Your task to perform on an android device: turn off notifications in google photos Image 0: 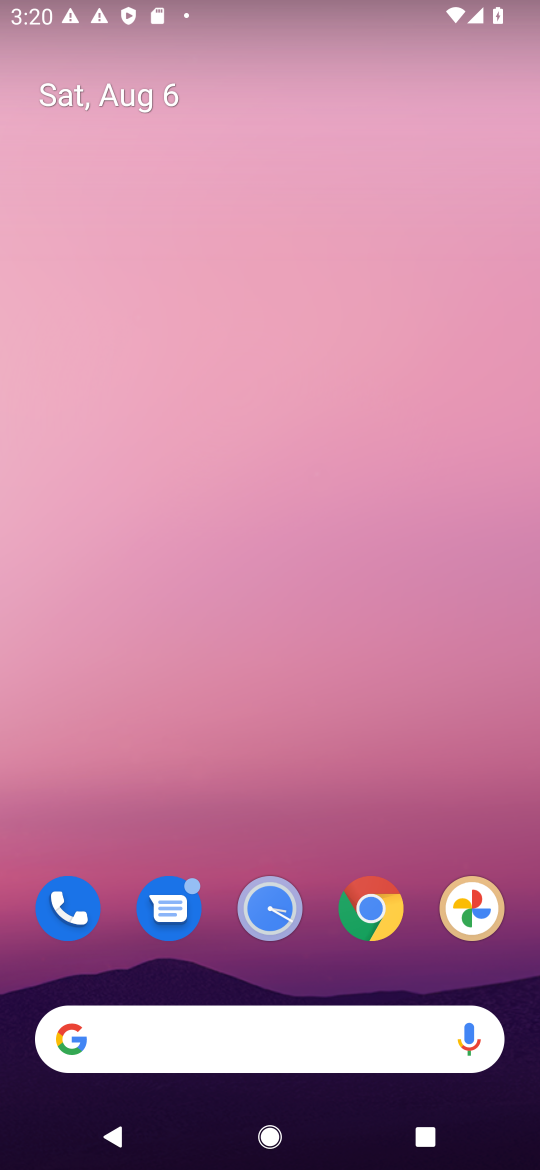
Step 0: click (475, 913)
Your task to perform on an android device: turn off notifications in google photos Image 1: 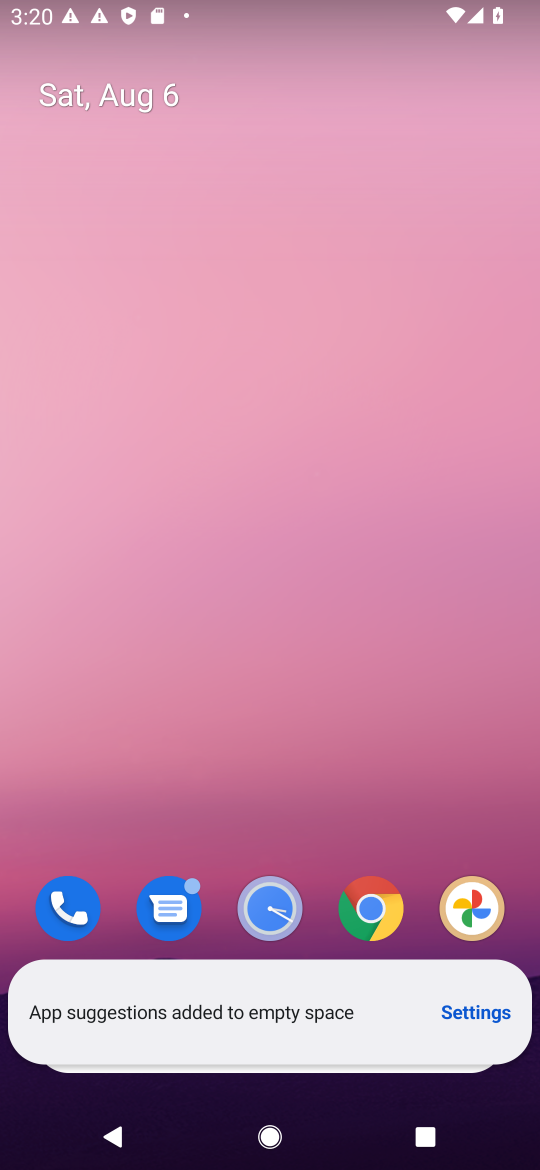
Step 1: click (476, 919)
Your task to perform on an android device: turn off notifications in google photos Image 2: 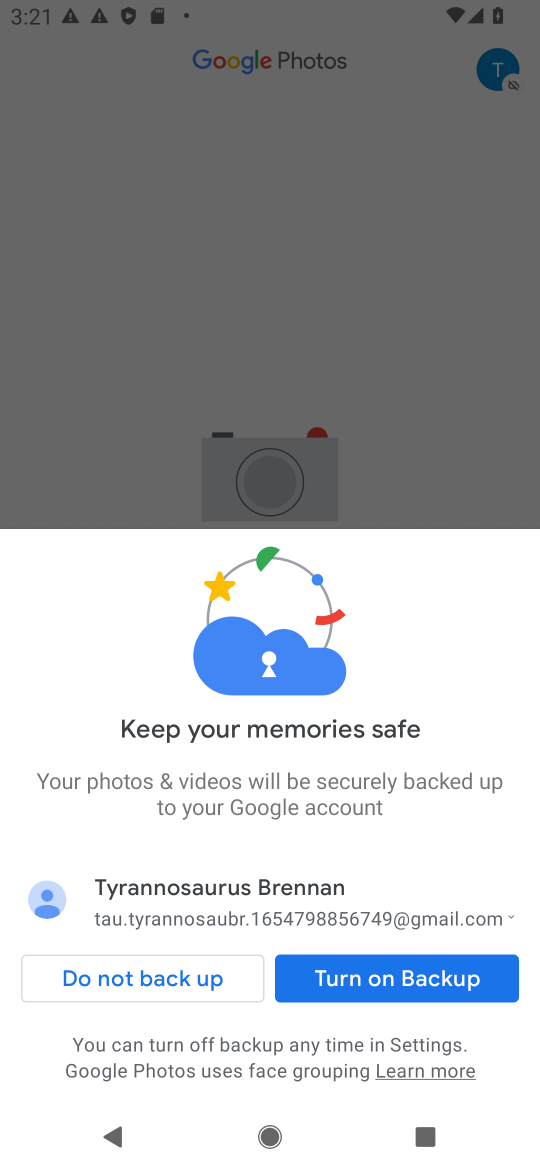
Step 2: click (212, 973)
Your task to perform on an android device: turn off notifications in google photos Image 3: 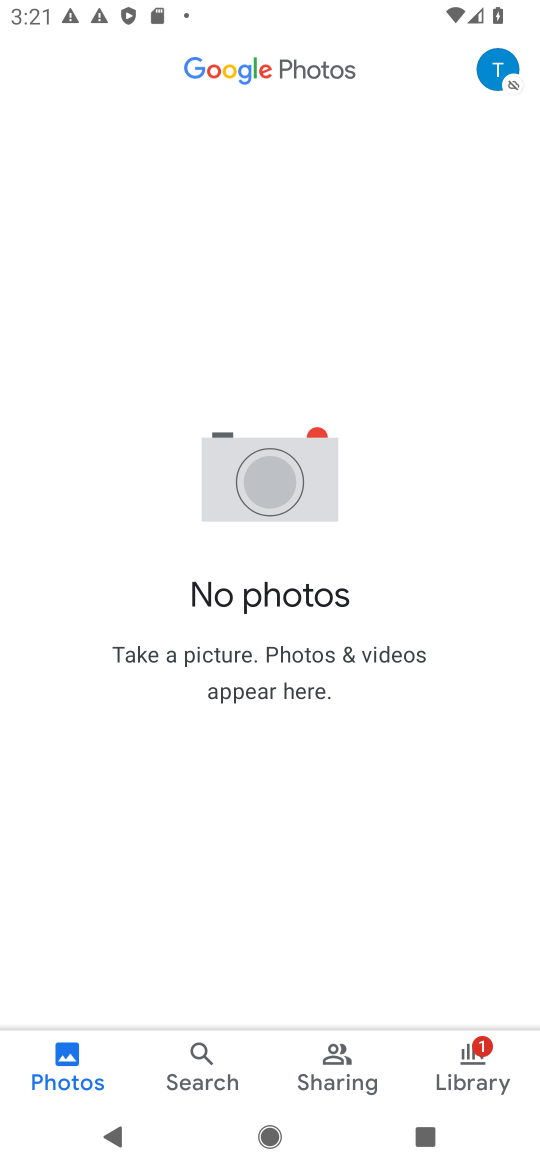
Step 3: click (498, 71)
Your task to perform on an android device: turn off notifications in google photos Image 4: 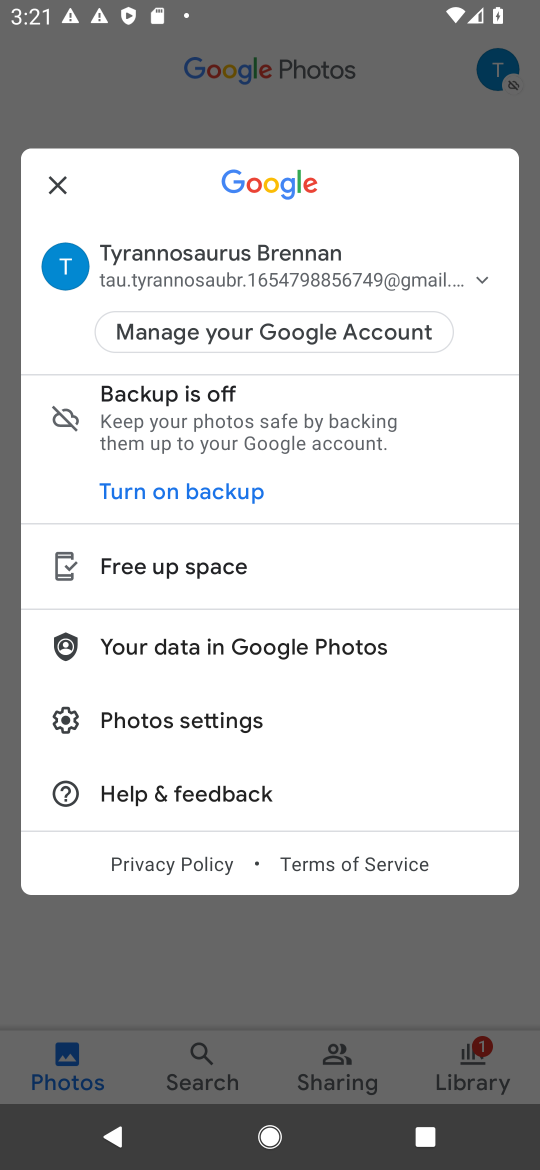
Step 4: click (227, 728)
Your task to perform on an android device: turn off notifications in google photos Image 5: 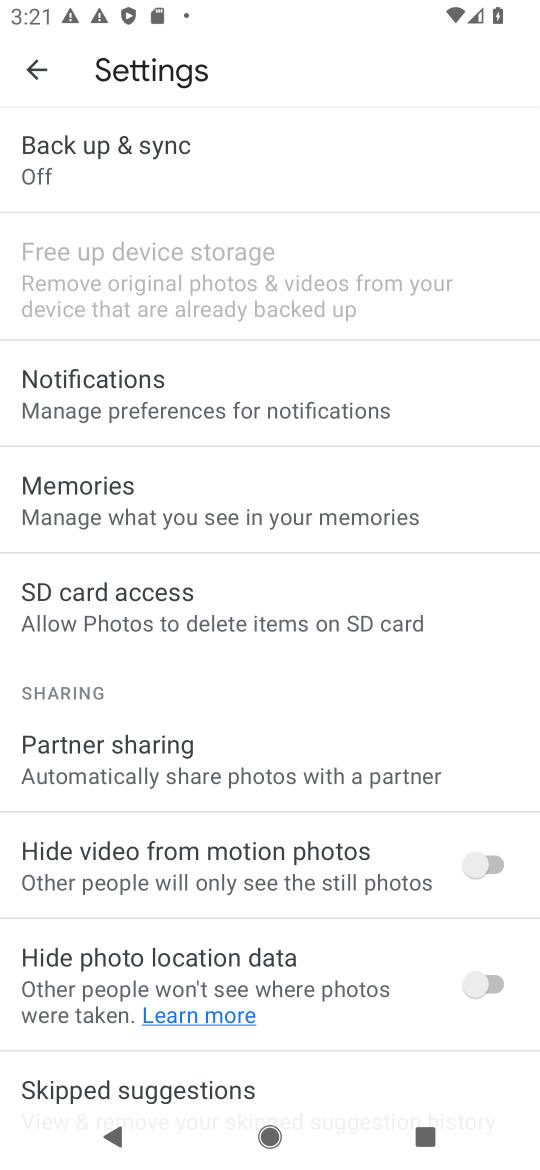
Step 5: click (200, 392)
Your task to perform on an android device: turn off notifications in google photos Image 6: 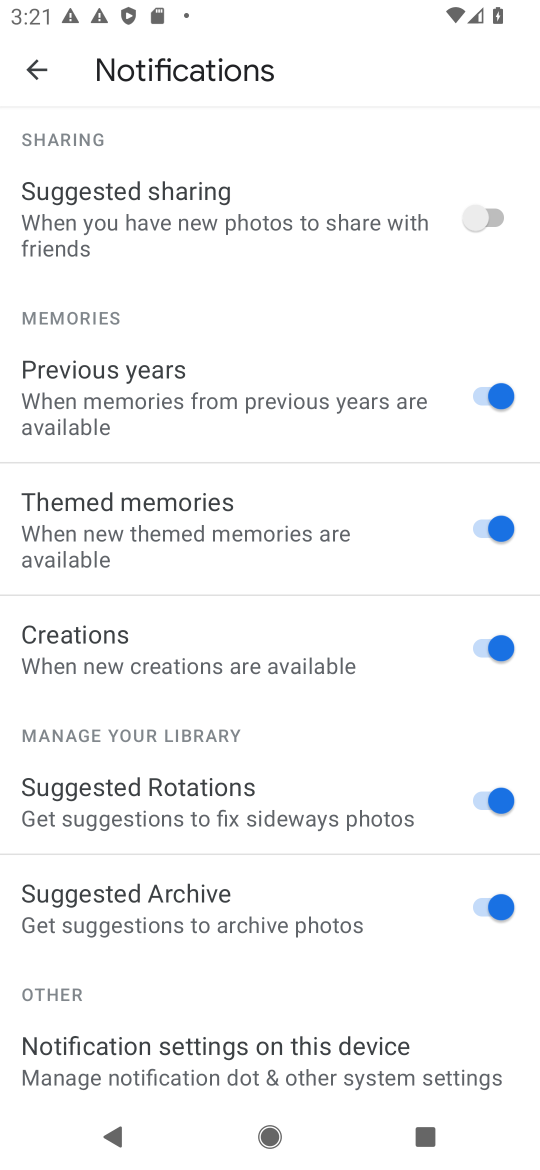
Step 6: drag from (156, 867) to (166, 653)
Your task to perform on an android device: turn off notifications in google photos Image 7: 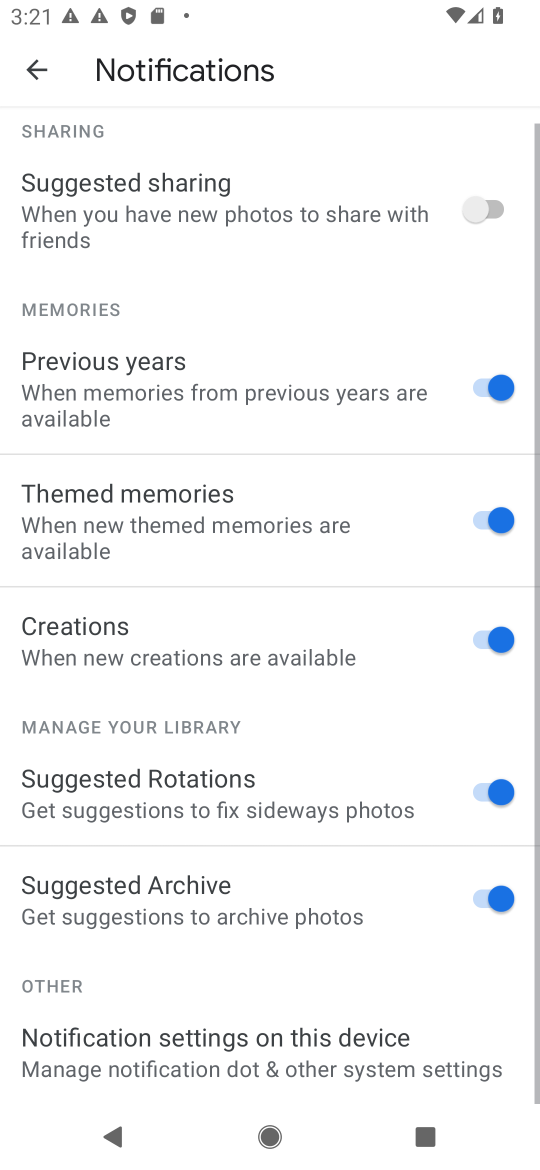
Step 7: click (196, 1035)
Your task to perform on an android device: turn off notifications in google photos Image 8: 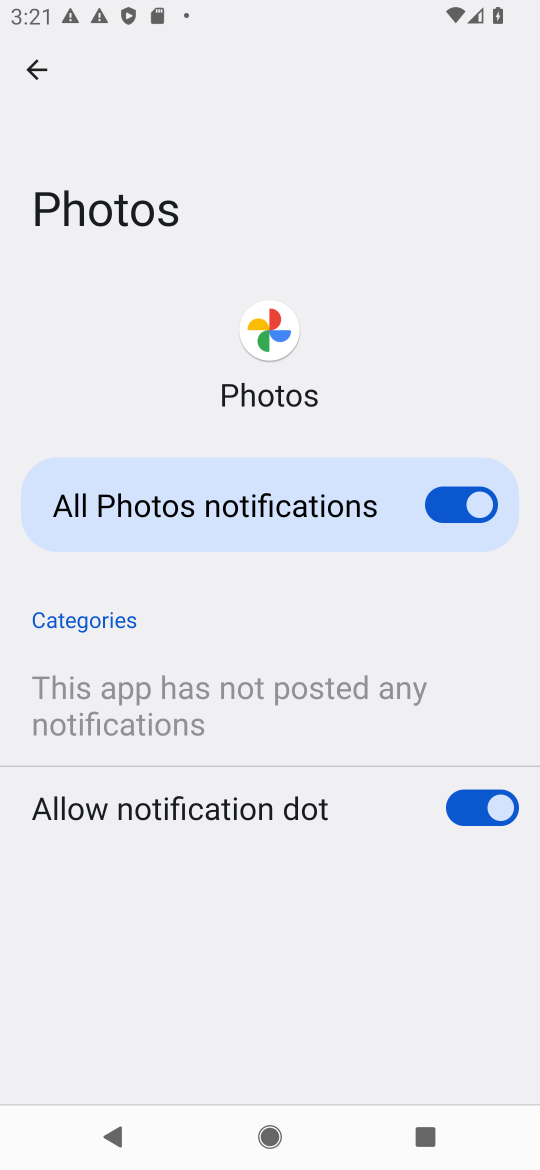
Step 8: click (402, 494)
Your task to perform on an android device: turn off notifications in google photos Image 9: 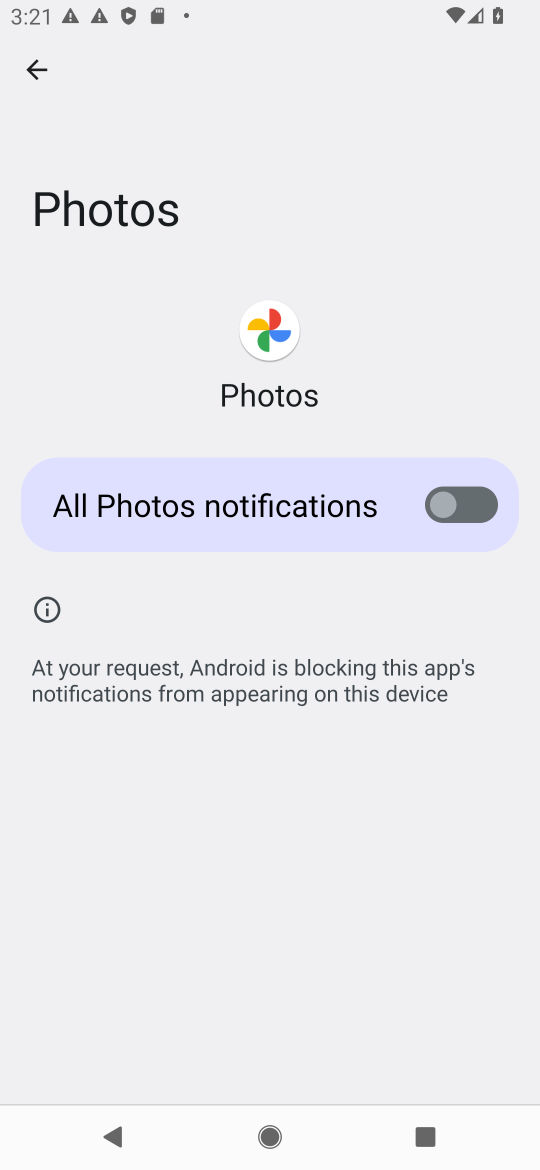
Step 9: task complete